Your task to perform on an android device: What's the weather going to be this weekend? Image 0: 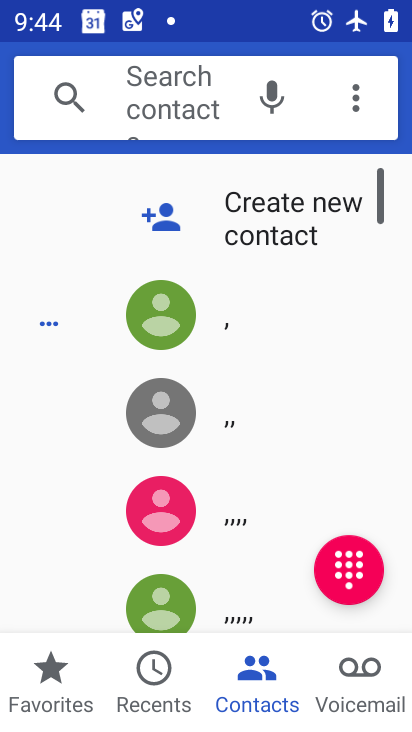
Step 0: press home button
Your task to perform on an android device: What's the weather going to be this weekend? Image 1: 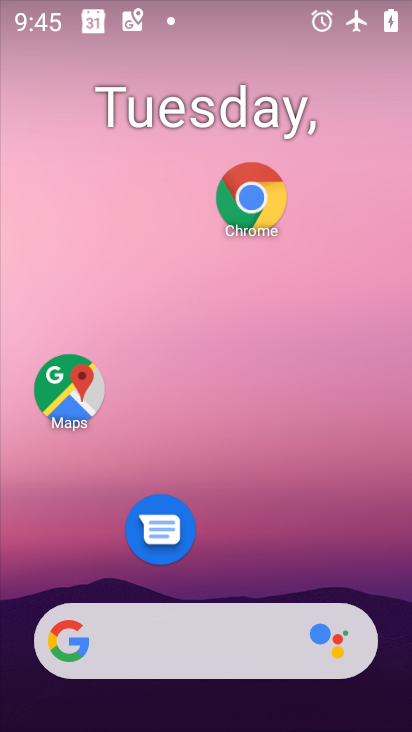
Step 1: task complete